Your task to perform on an android device: turn smart compose on in the gmail app Image 0: 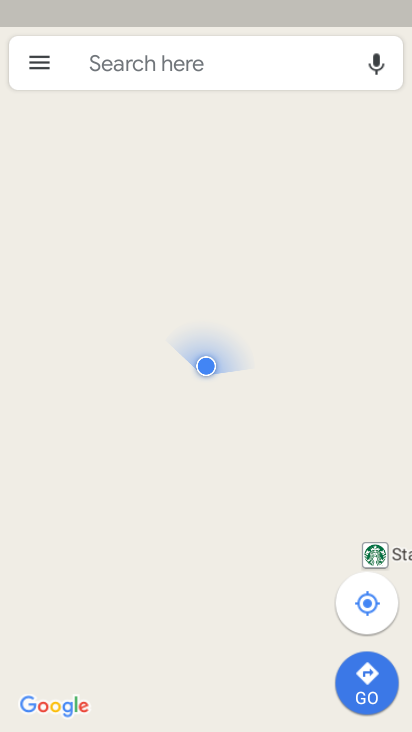
Step 0: press home button
Your task to perform on an android device: turn smart compose on in the gmail app Image 1: 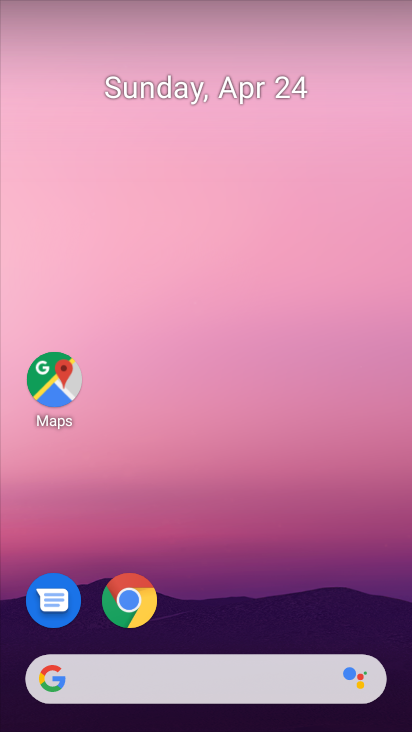
Step 1: drag from (209, 539) to (144, 28)
Your task to perform on an android device: turn smart compose on in the gmail app Image 2: 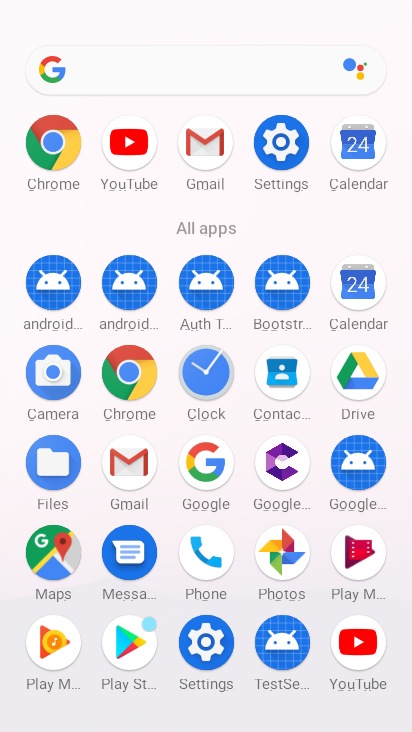
Step 2: click (202, 146)
Your task to perform on an android device: turn smart compose on in the gmail app Image 3: 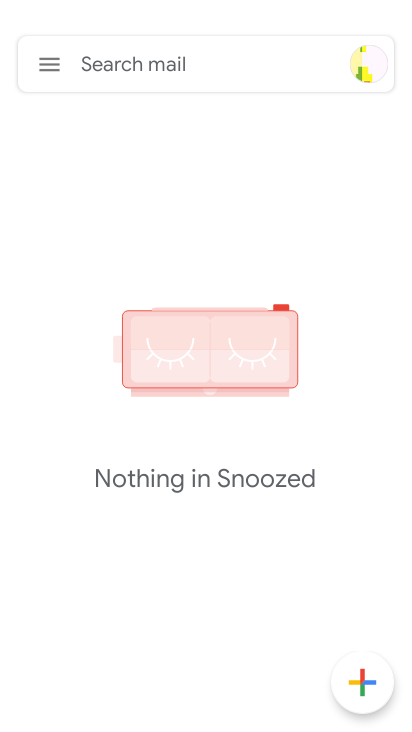
Step 3: click (43, 59)
Your task to perform on an android device: turn smart compose on in the gmail app Image 4: 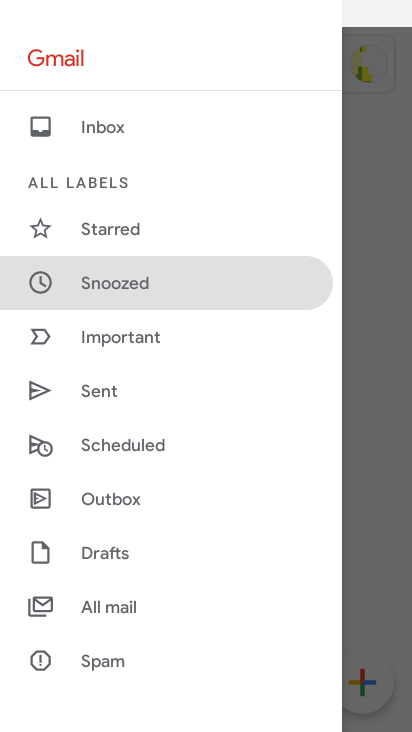
Step 4: drag from (171, 572) to (171, 237)
Your task to perform on an android device: turn smart compose on in the gmail app Image 5: 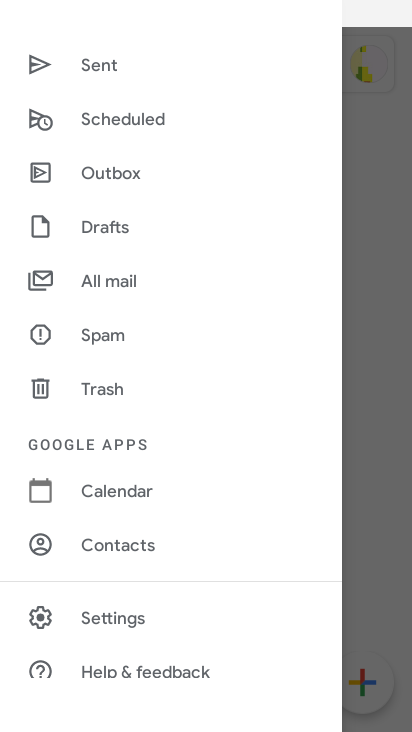
Step 5: click (116, 607)
Your task to perform on an android device: turn smart compose on in the gmail app Image 6: 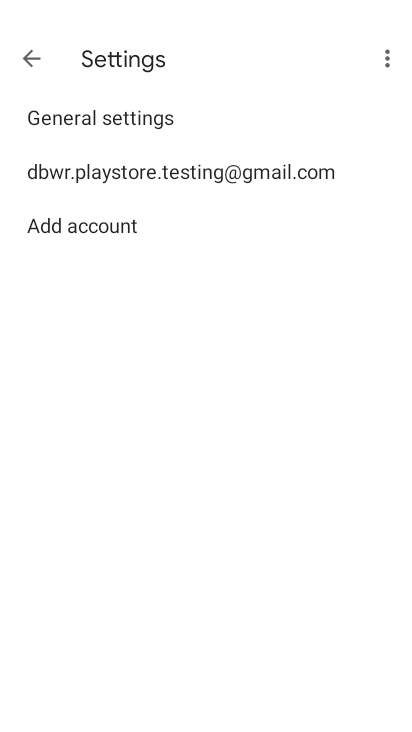
Step 6: click (91, 168)
Your task to perform on an android device: turn smart compose on in the gmail app Image 7: 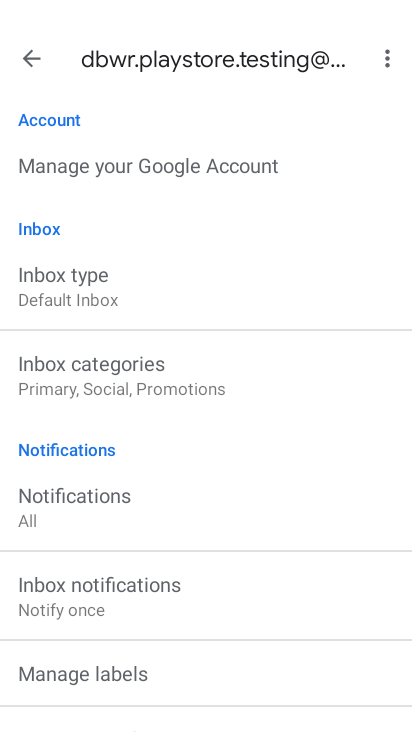
Step 7: task complete